Your task to perform on an android device: Go to Android settings Image 0: 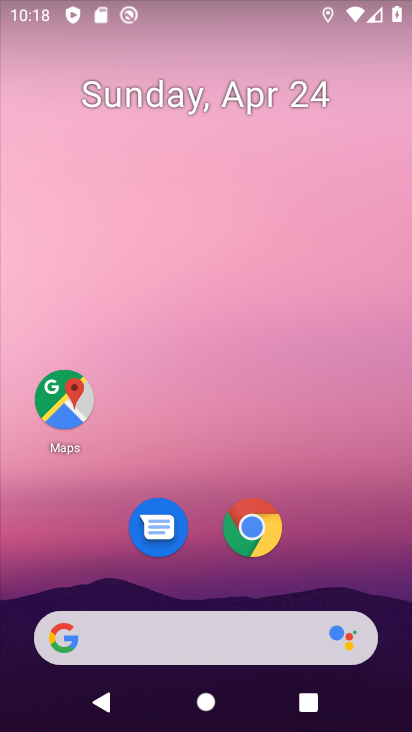
Step 0: drag from (365, 582) to (303, 63)
Your task to perform on an android device: Go to Android settings Image 1: 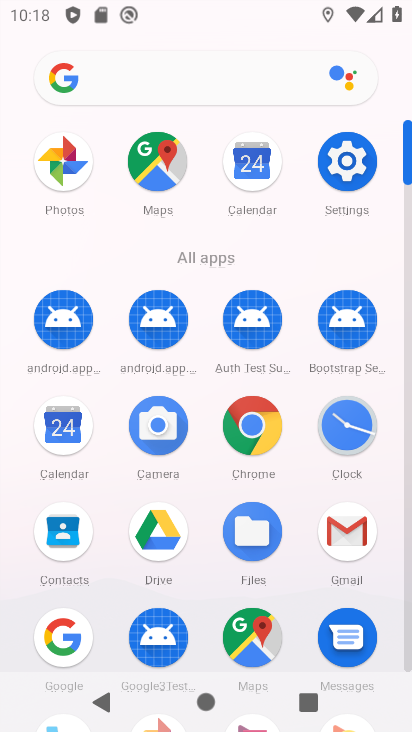
Step 1: click (332, 177)
Your task to perform on an android device: Go to Android settings Image 2: 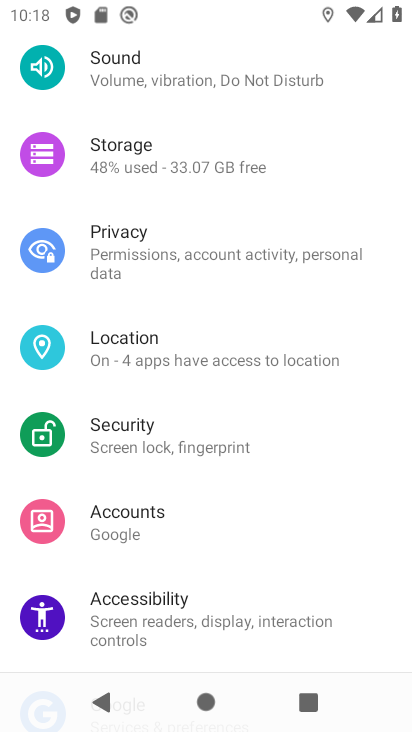
Step 2: drag from (195, 546) to (181, 367)
Your task to perform on an android device: Go to Android settings Image 3: 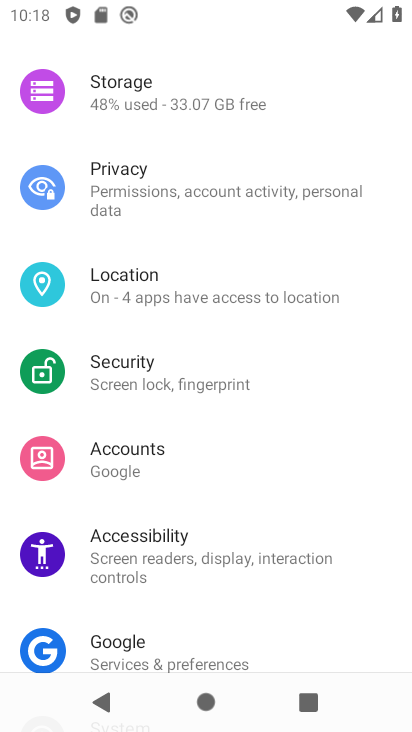
Step 3: drag from (180, 368) to (176, 251)
Your task to perform on an android device: Go to Android settings Image 4: 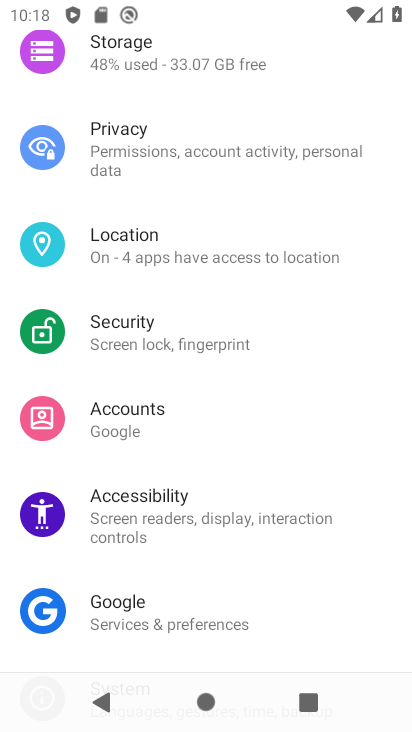
Step 4: drag from (196, 554) to (196, 302)
Your task to perform on an android device: Go to Android settings Image 5: 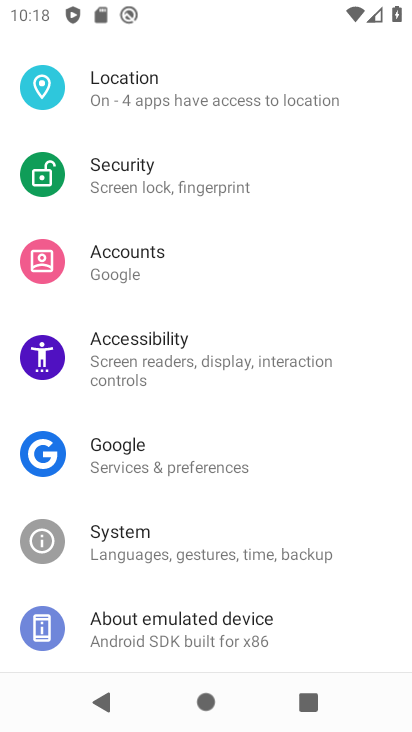
Step 5: drag from (191, 501) to (185, 232)
Your task to perform on an android device: Go to Android settings Image 6: 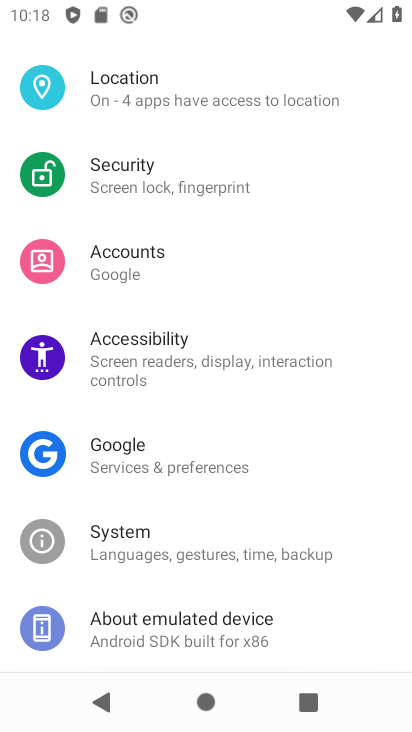
Step 6: click (190, 515)
Your task to perform on an android device: Go to Android settings Image 7: 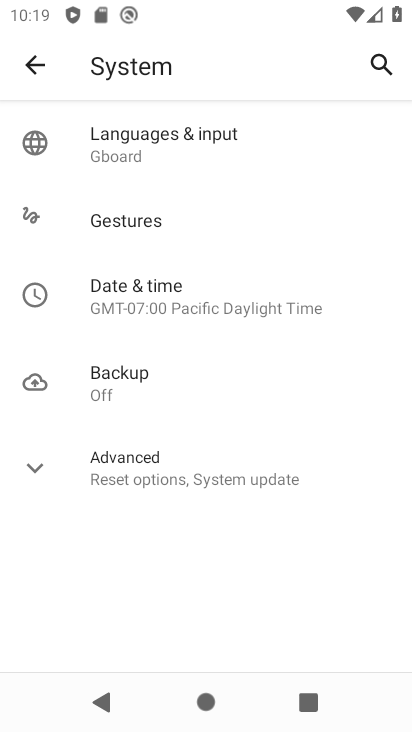
Step 7: task complete